Your task to perform on an android device: turn on translation in the chrome app Image 0: 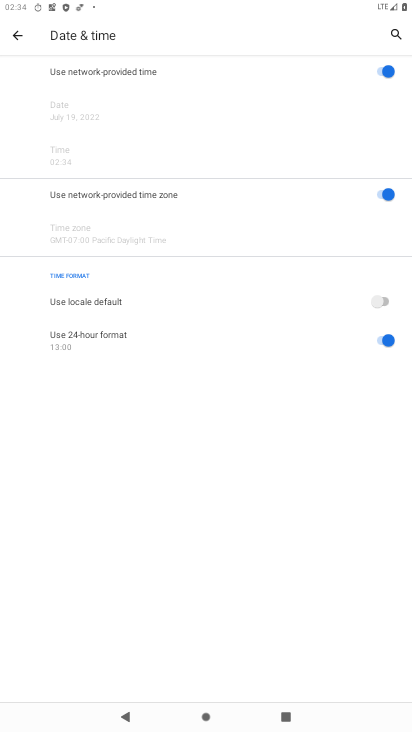
Step 0: press home button
Your task to perform on an android device: turn on translation in the chrome app Image 1: 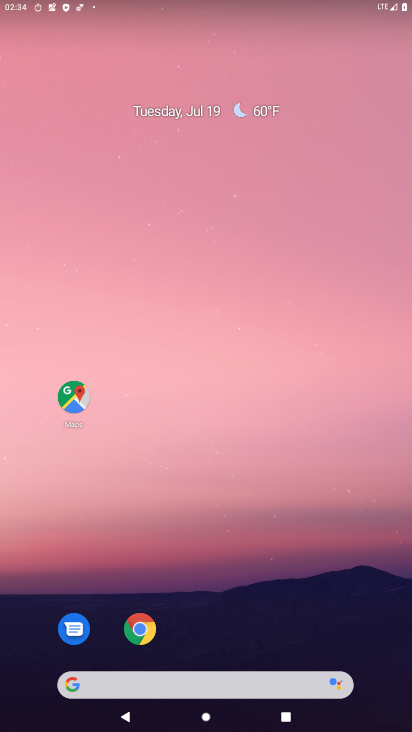
Step 1: click (125, 640)
Your task to perform on an android device: turn on translation in the chrome app Image 2: 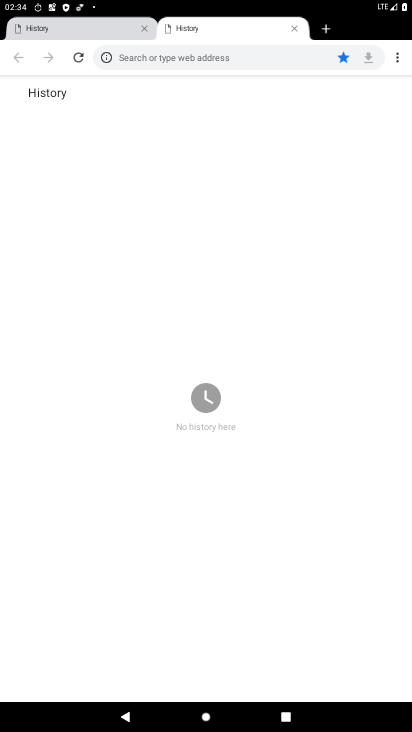
Step 2: click (395, 62)
Your task to perform on an android device: turn on translation in the chrome app Image 3: 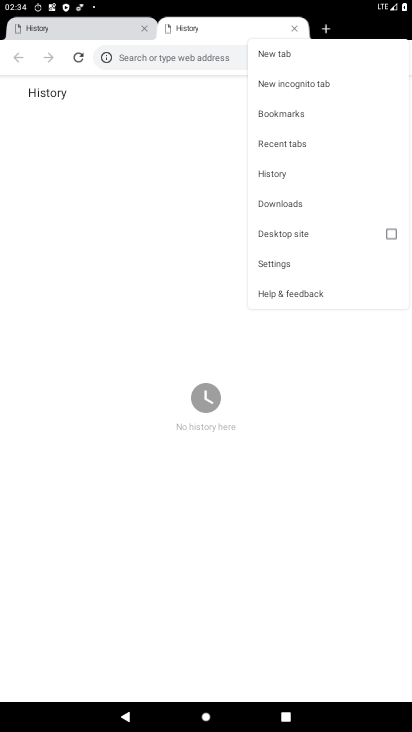
Step 3: click (297, 270)
Your task to perform on an android device: turn on translation in the chrome app Image 4: 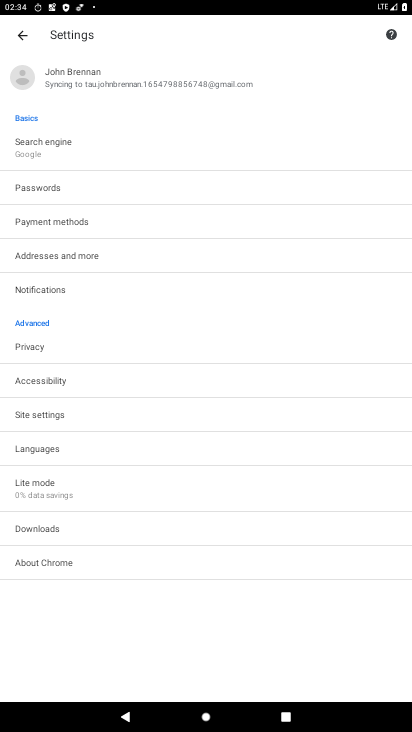
Step 4: click (47, 452)
Your task to perform on an android device: turn on translation in the chrome app Image 5: 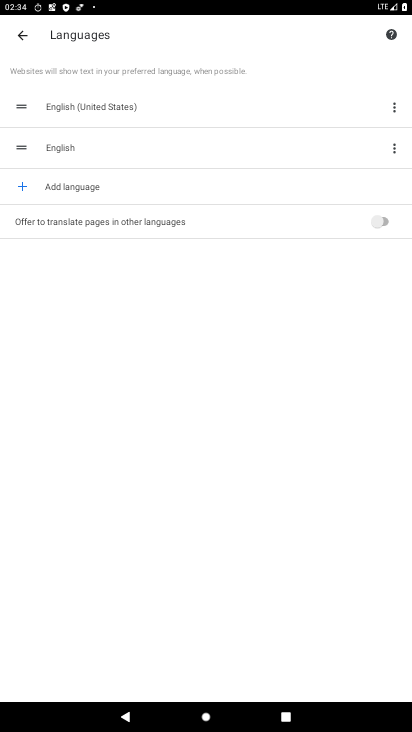
Step 5: click (385, 220)
Your task to perform on an android device: turn on translation in the chrome app Image 6: 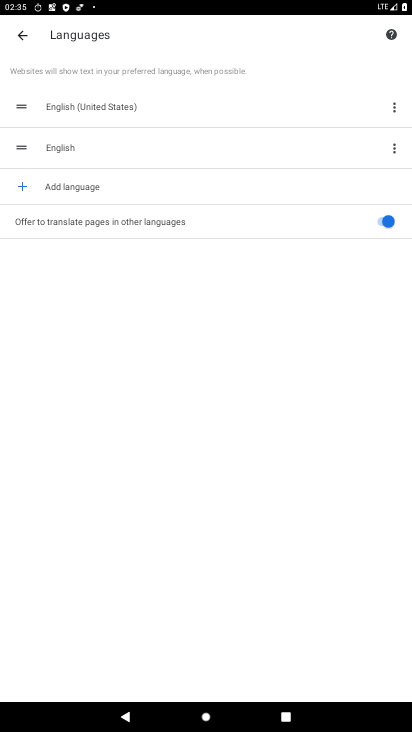
Step 6: task complete